Your task to perform on an android device: Search for sushi restaurants on Maps Image 0: 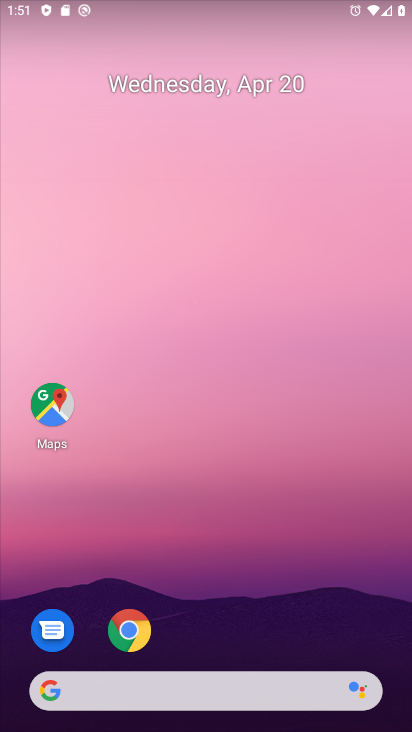
Step 0: click (46, 412)
Your task to perform on an android device: Search for sushi restaurants on Maps Image 1: 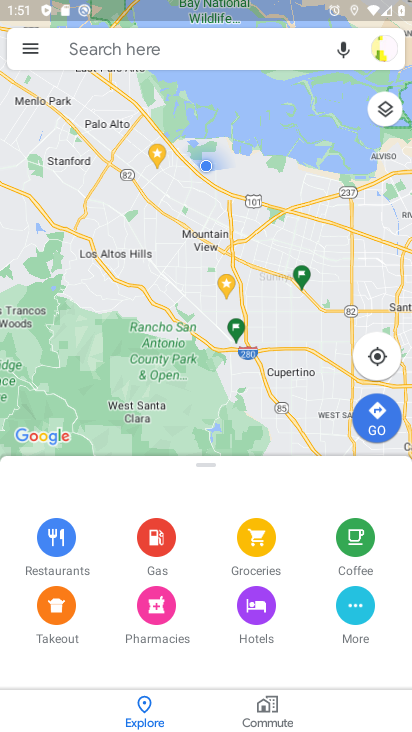
Step 1: click (142, 53)
Your task to perform on an android device: Search for sushi restaurants on Maps Image 2: 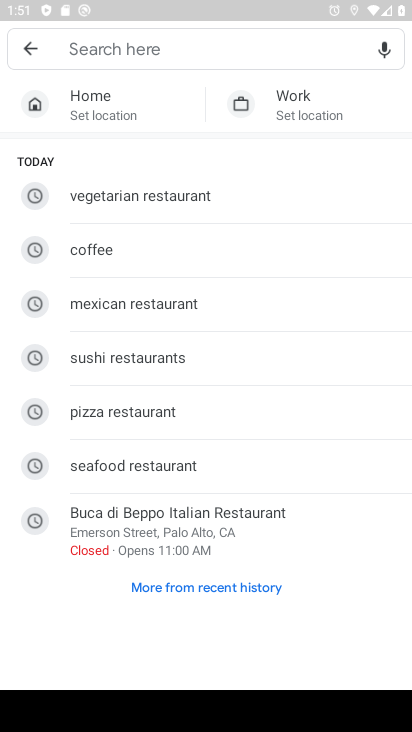
Step 2: click (113, 347)
Your task to perform on an android device: Search for sushi restaurants on Maps Image 3: 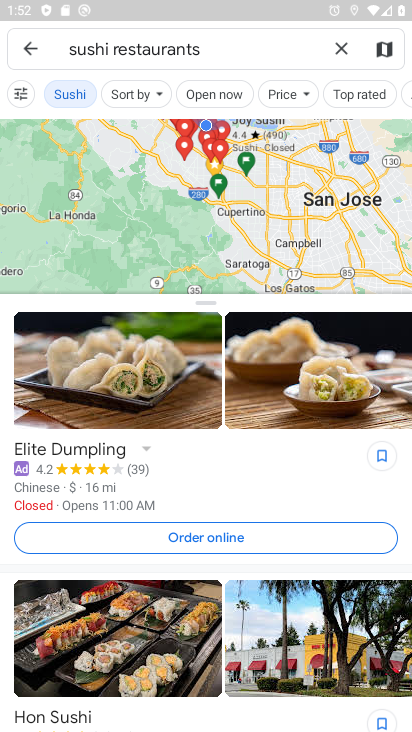
Step 3: task complete